Your task to perform on an android device: turn on airplane mode Image 0: 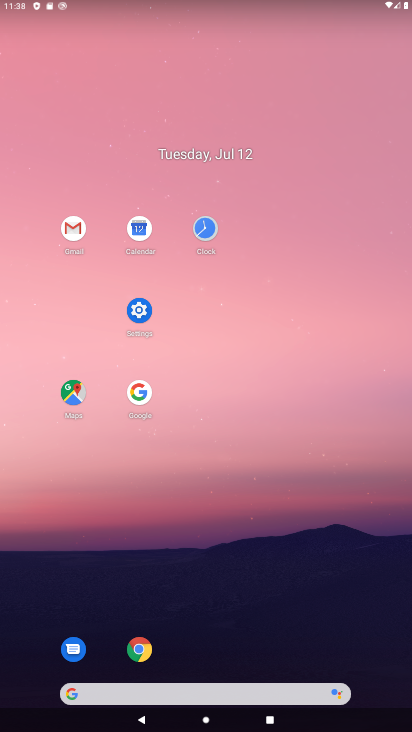
Step 0: click (133, 313)
Your task to perform on an android device: turn on airplane mode Image 1: 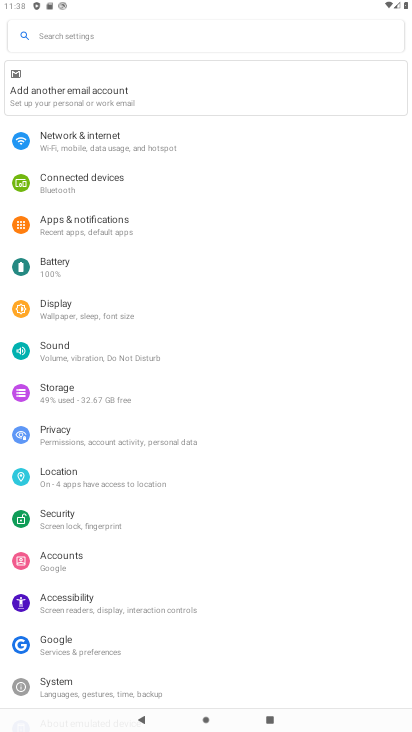
Step 1: click (215, 125)
Your task to perform on an android device: turn on airplane mode Image 2: 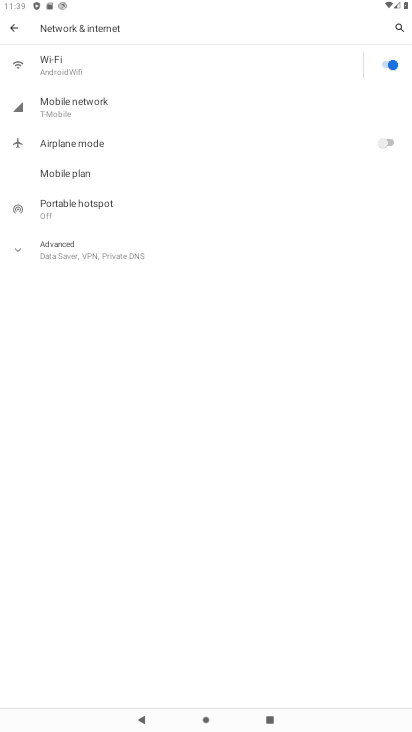
Step 2: click (84, 138)
Your task to perform on an android device: turn on airplane mode Image 3: 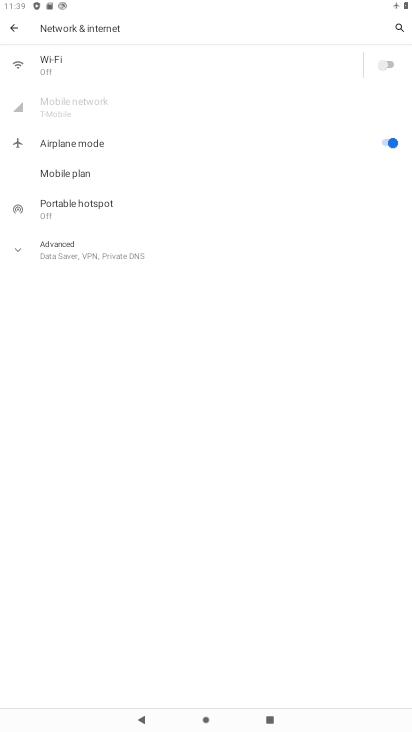
Step 3: task complete